Your task to perform on an android device: Toggle the flashlight Image 0: 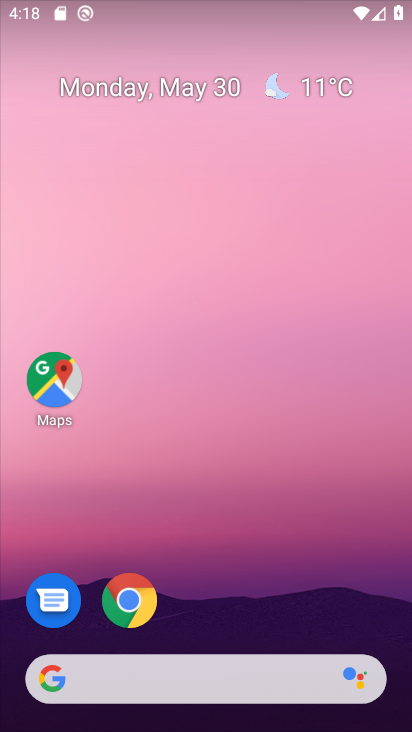
Step 0: drag from (287, 535) to (268, 93)
Your task to perform on an android device: Toggle the flashlight Image 1: 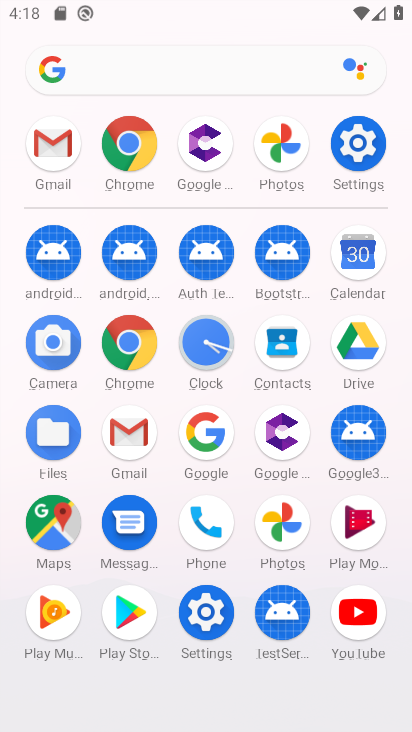
Step 1: click (355, 143)
Your task to perform on an android device: Toggle the flashlight Image 2: 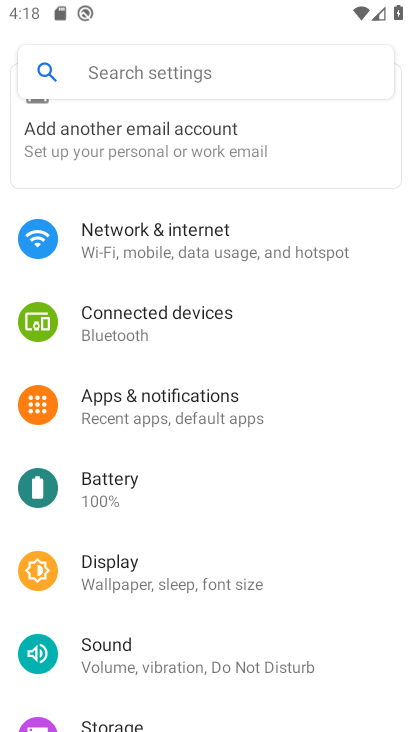
Step 2: task complete